Your task to perform on an android device: Go to Yahoo.com Image 0: 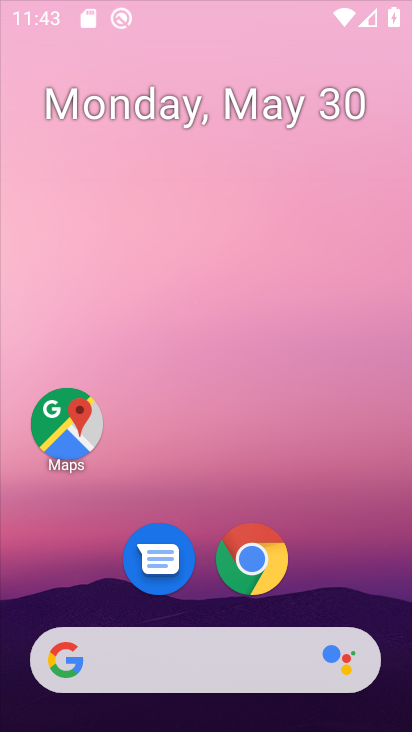
Step 0: drag from (389, 581) to (399, 24)
Your task to perform on an android device: Go to Yahoo.com Image 1: 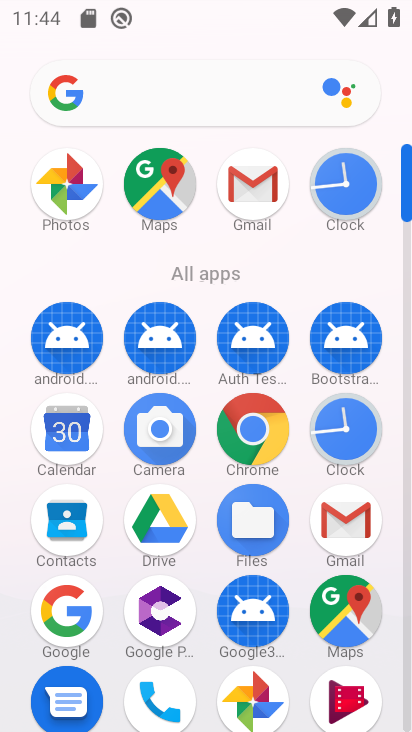
Step 1: click (261, 422)
Your task to perform on an android device: Go to Yahoo.com Image 2: 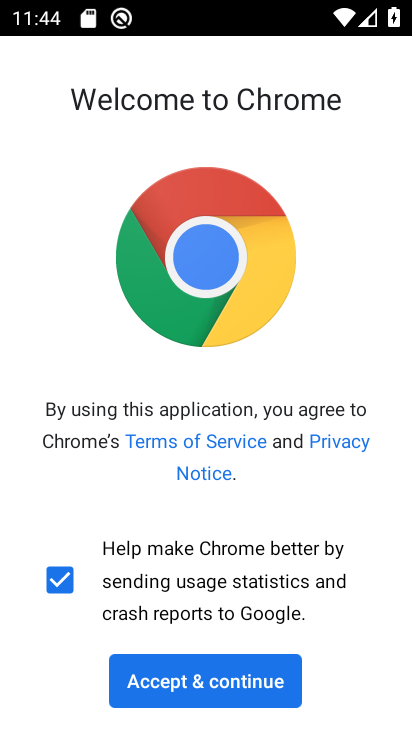
Step 2: click (243, 672)
Your task to perform on an android device: Go to Yahoo.com Image 3: 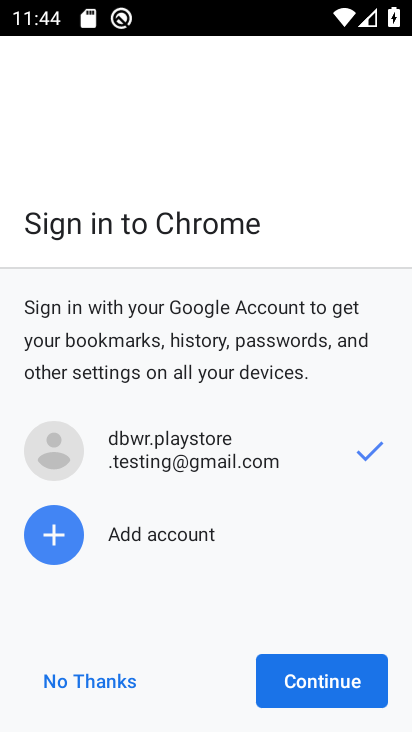
Step 3: click (303, 674)
Your task to perform on an android device: Go to Yahoo.com Image 4: 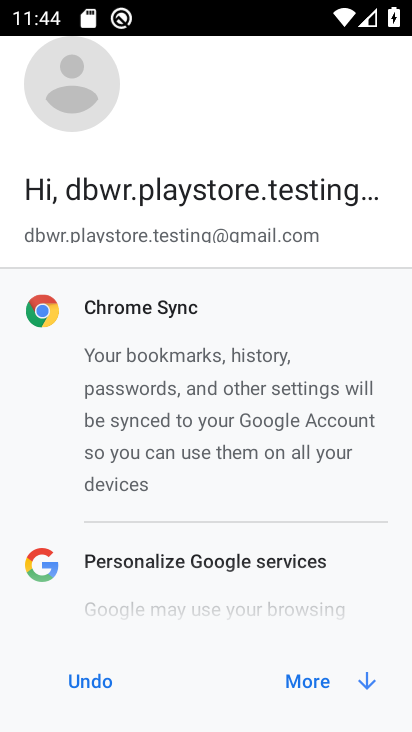
Step 4: click (303, 674)
Your task to perform on an android device: Go to Yahoo.com Image 5: 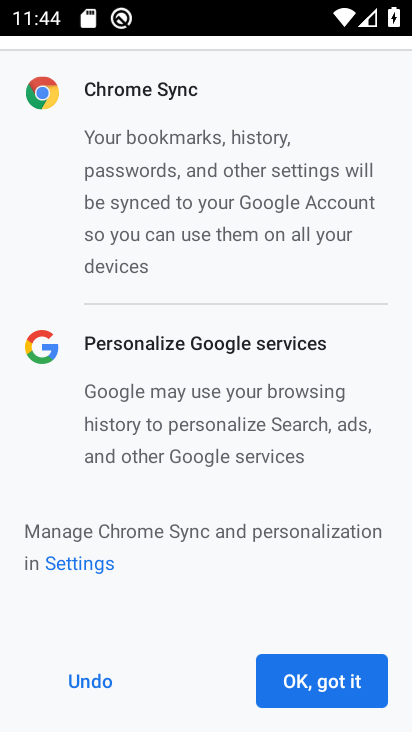
Step 5: click (303, 674)
Your task to perform on an android device: Go to Yahoo.com Image 6: 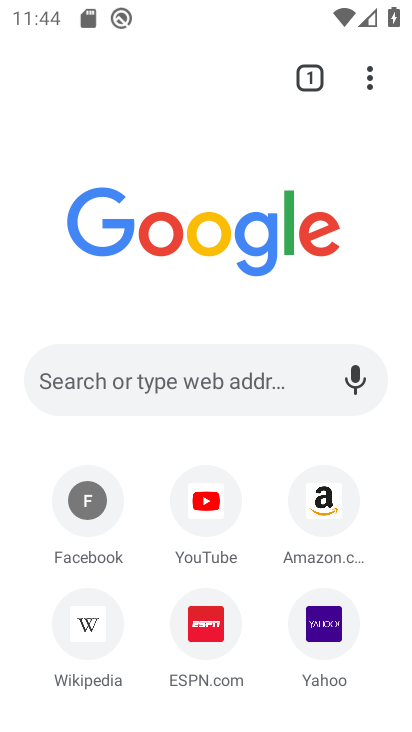
Step 6: click (321, 636)
Your task to perform on an android device: Go to Yahoo.com Image 7: 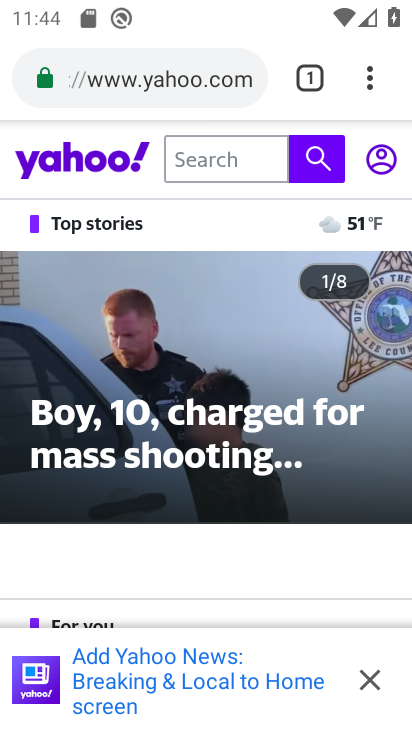
Step 7: task complete